Your task to perform on an android device: turn notification dots on Image 0: 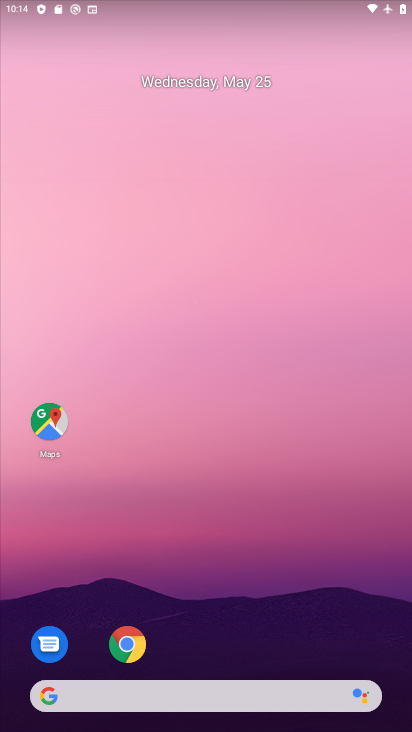
Step 0: drag from (199, 636) to (230, 65)
Your task to perform on an android device: turn notification dots on Image 1: 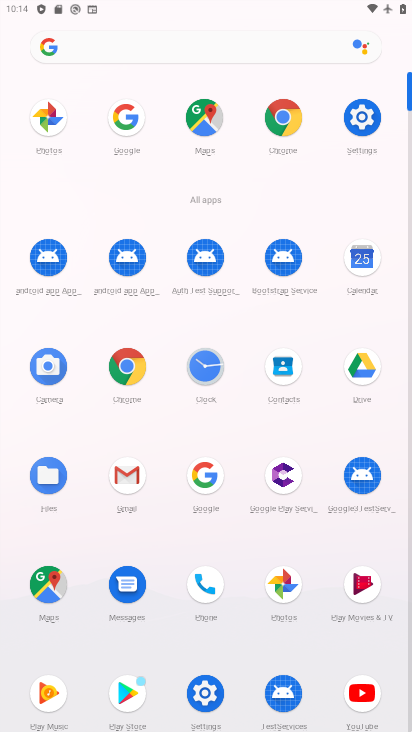
Step 1: click (363, 129)
Your task to perform on an android device: turn notification dots on Image 2: 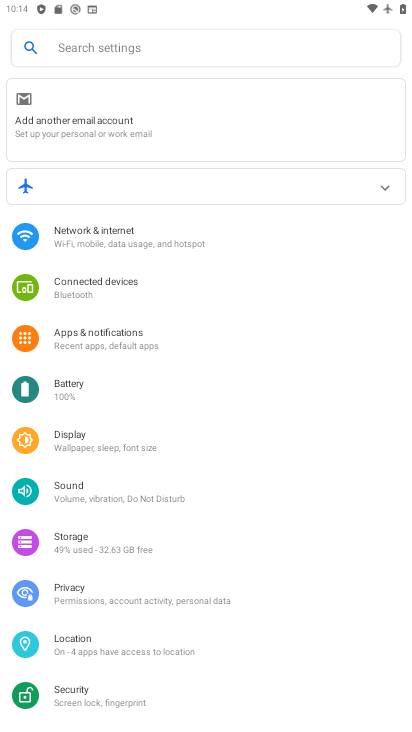
Step 2: click (113, 335)
Your task to perform on an android device: turn notification dots on Image 3: 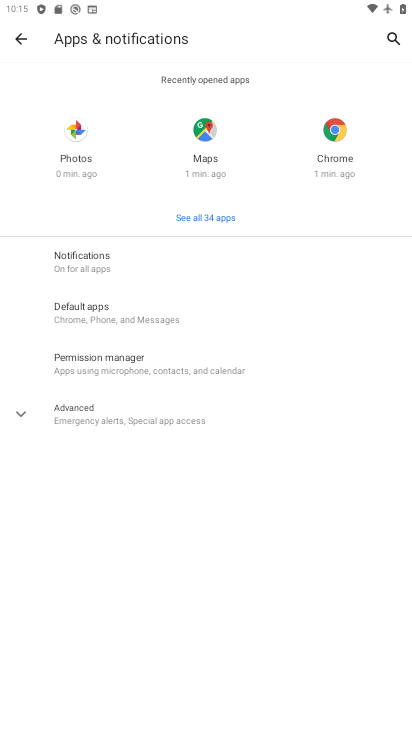
Step 3: click (95, 266)
Your task to perform on an android device: turn notification dots on Image 4: 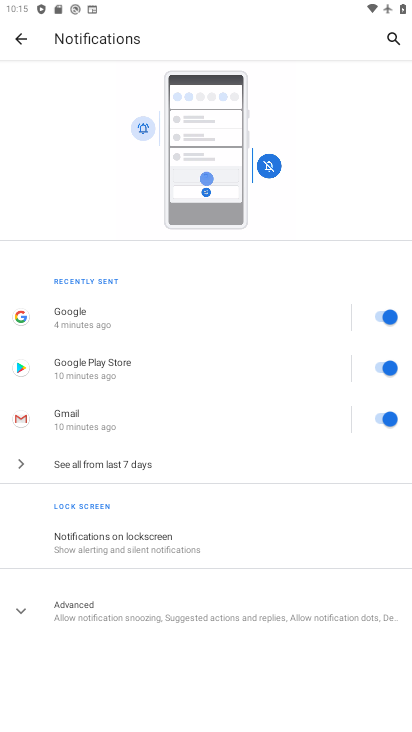
Step 4: click (121, 610)
Your task to perform on an android device: turn notification dots on Image 5: 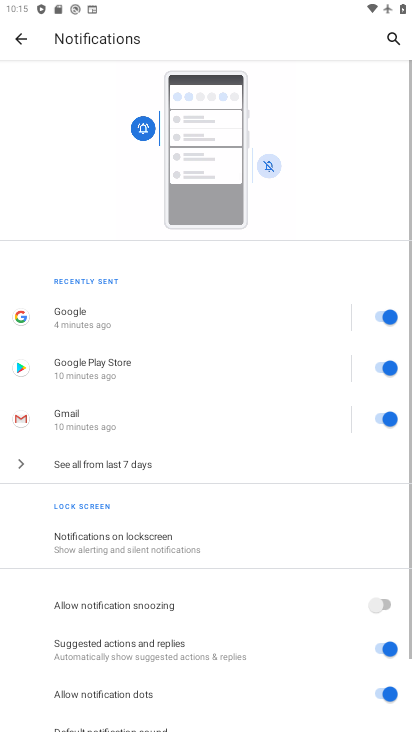
Step 5: drag from (285, 597) to (258, 356)
Your task to perform on an android device: turn notification dots on Image 6: 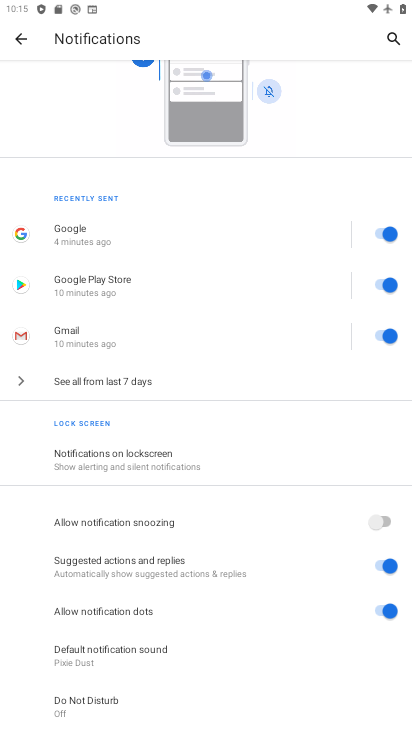
Step 6: click (379, 610)
Your task to perform on an android device: turn notification dots on Image 7: 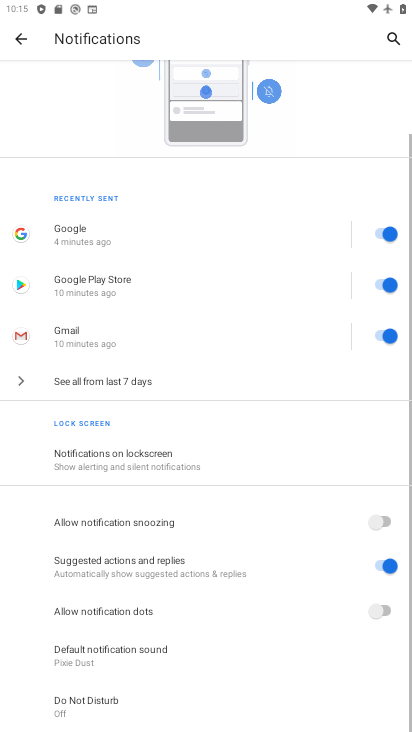
Step 7: click (379, 610)
Your task to perform on an android device: turn notification dots on Image 8: 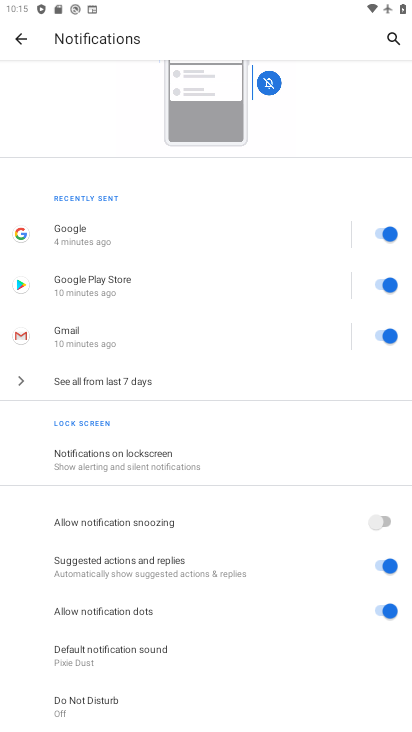
Step 8: task complete